Your task to perform on an android device: turn off picture-in-picture Image 0: 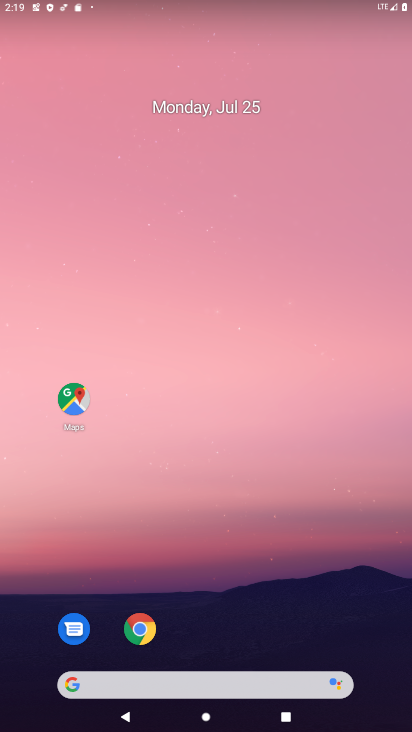
Step 0: drag from (166, 639) to (221, 162)
Your task to perform on an android device: turn off picture-in-picture Image 1: 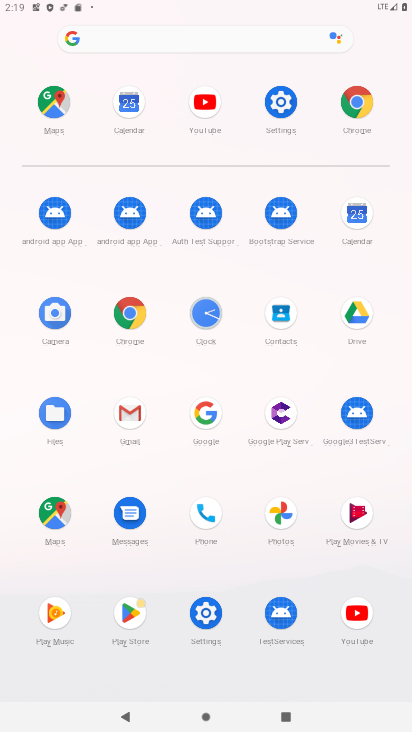
Step 1: drag from (148, 329) to (182, 69)
Your task to perform on an android device: turn off picture-in-picture Image 2: 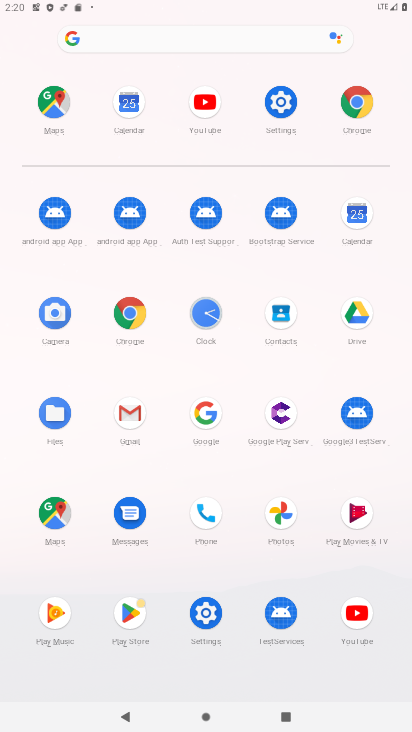
Step 2: click (203, 619)
Your task to perform on an android device: turn off picture-in-picture Image 3: 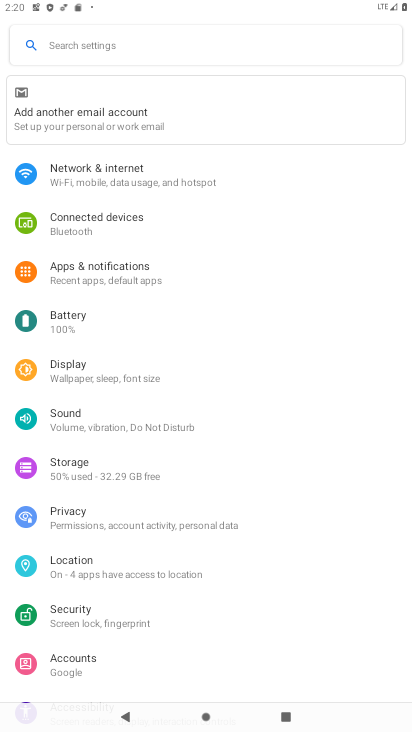
Step 3: click (118, 281)
Your task to perform on an android device: turn off picture-in-picture Image 4: 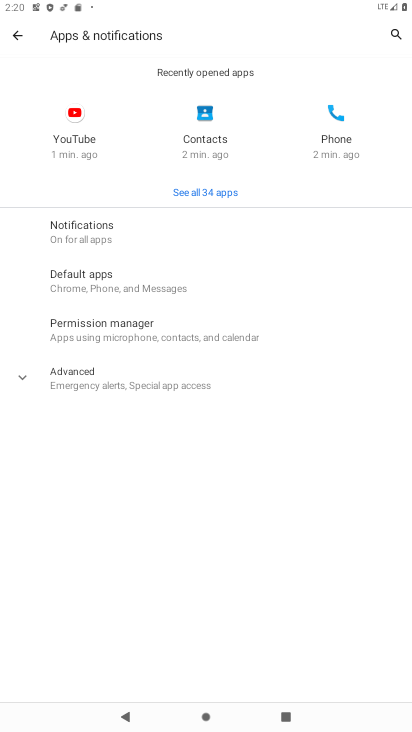
Step 4: click (88, 377)
Your task to perform on an android device: turn off picture-in-picture Image 5: 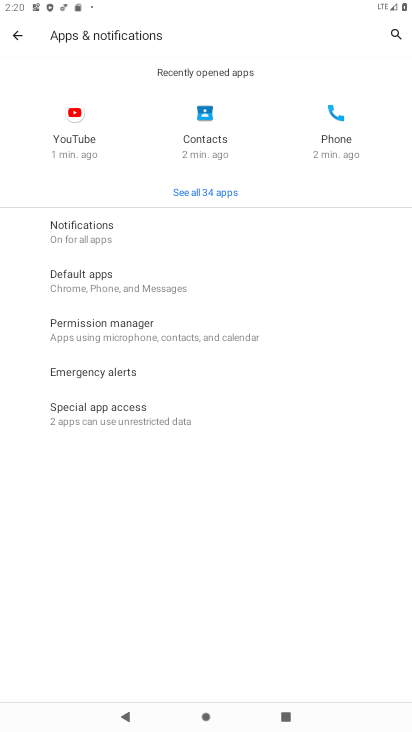
Step 5: click (129, 415)
Your task to perform on an android device: turn off picture-in-picture Image 6: 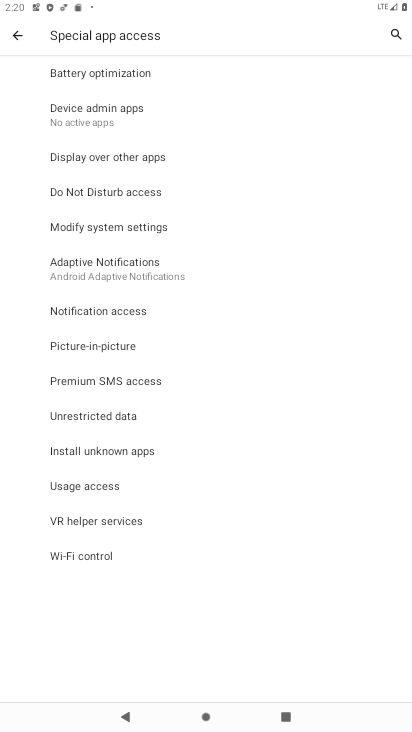
Step 6: click (100, 339)
Your task to perform on an android device: turn off picture-in-picture Image 7: 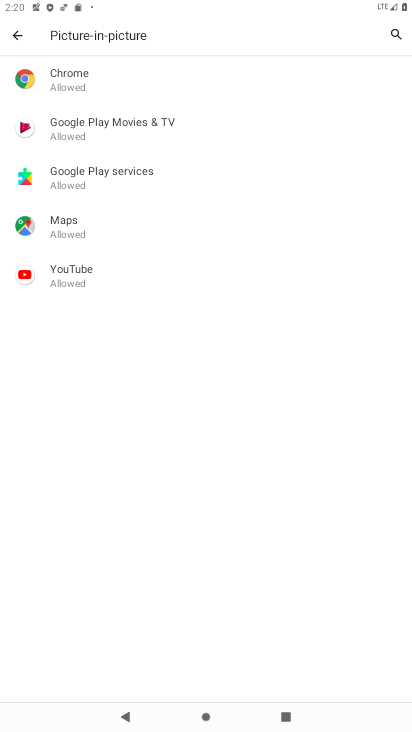
Step 7: click (122, 79)
Your task to perform on an android device: turn off picture-in-picture Image 8: 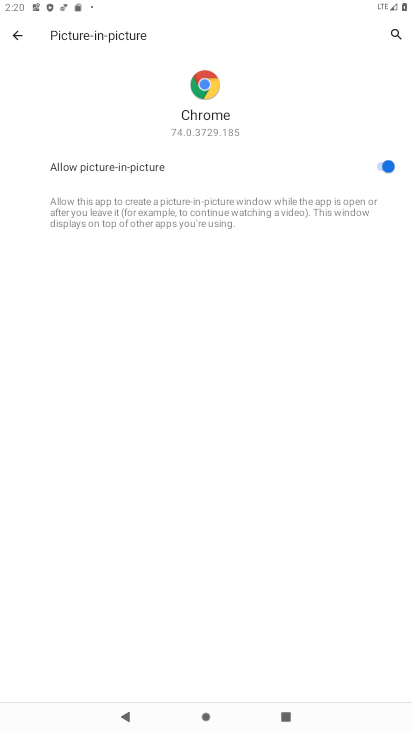
Step 8: task complete